Your task to perform on an android device: check google app version Image 0: 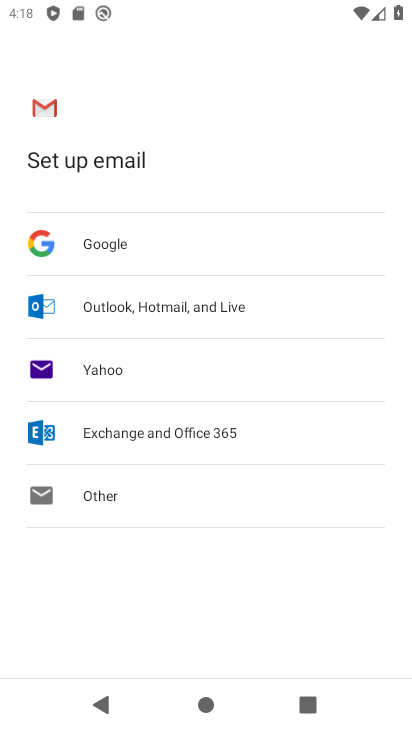
Step 0: press home button
Your task to perform on an android device: check google app version Image 1: 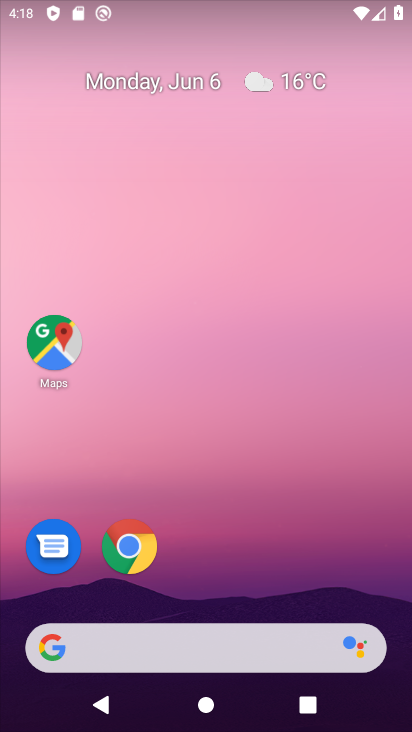
Step 1: drag from (200, 618) to (316, 9)
Your task to perform on an android device: check google app version Image 2: 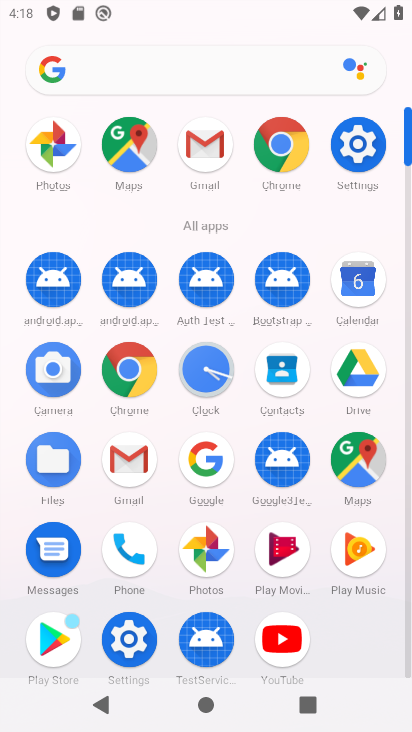
Step 2: click (202, 461)
Your task to perform on an android device: check google app version Image 3: 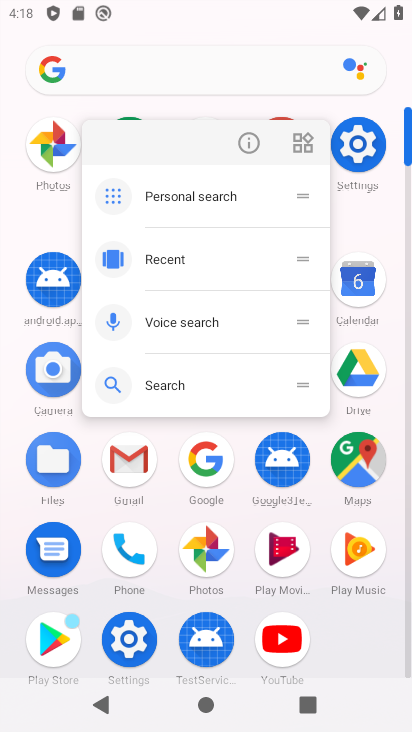
Step 3: click (251, 139)
Your task to perform on an android device: check google app version Image 4: 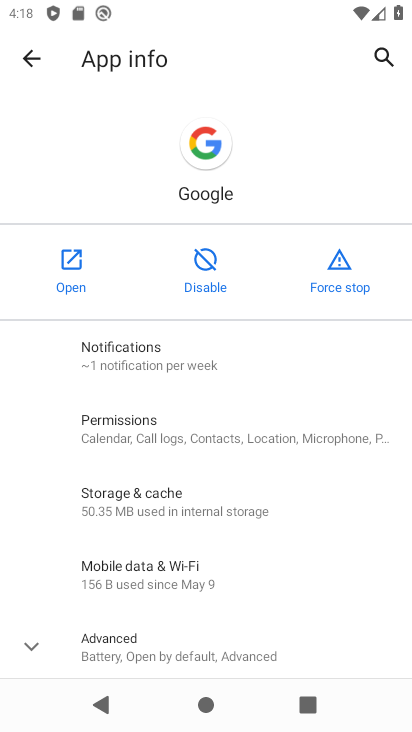
Step 4: drag from (165, 548) to (148, 190)
Your task to perform on an android device: check google app version Image 5: 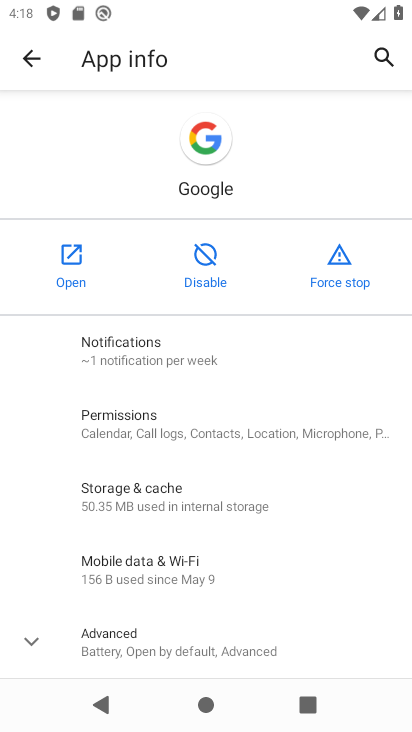
Step 5: click (190, 636)
Your task to perform on an android device: check google app version Image 6: 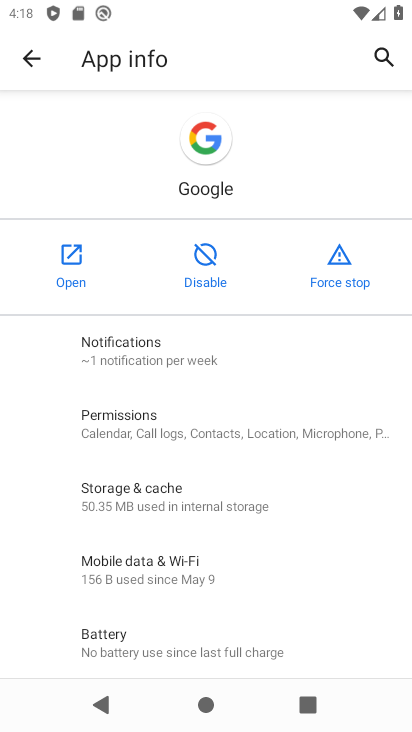
Step 6: drag from (234, 624) to (203, 66)
Your task to perform on an android device: check google app version Image 7: 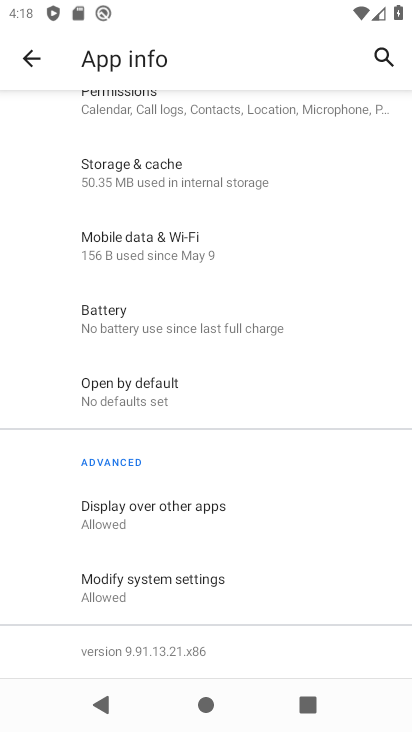
Step 7: click (192, 649)
Your task to perform on an android device: check google app version Image 8: 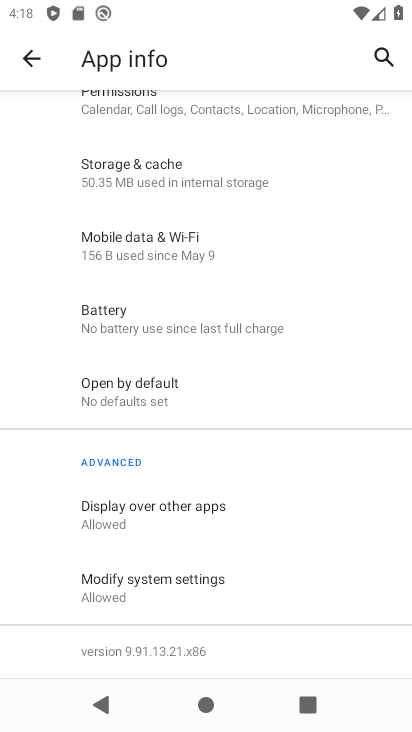
Step 8: task complete